Your task to perform on an android device: Open eBay Image 0: 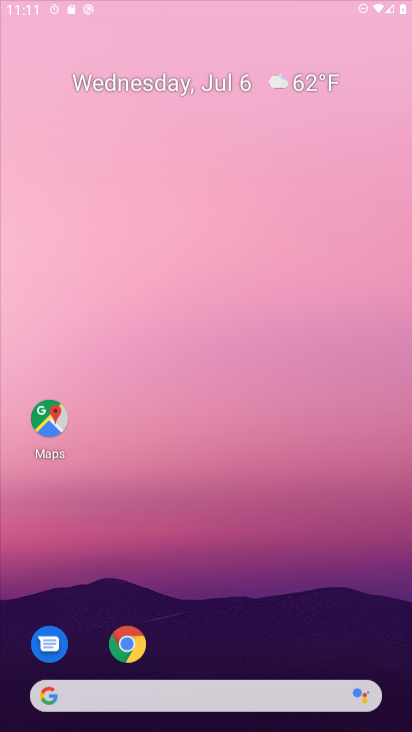
Step 0: press home button
Your task to perform on an android device: Open eBay Image 1: 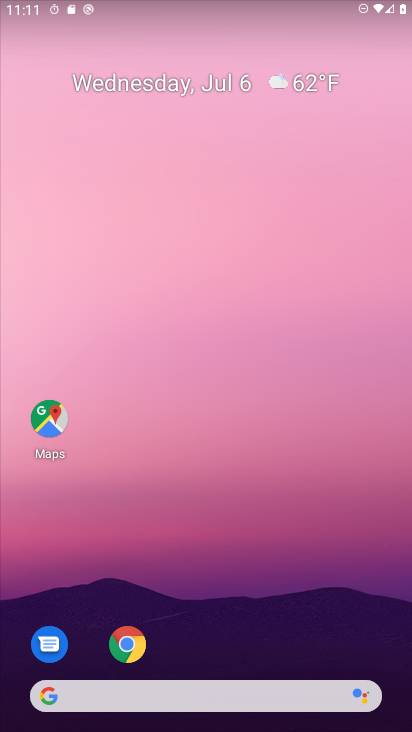
Step 1: click (51, 693)
Your task to perform on an android device: Open eBay Image 2: 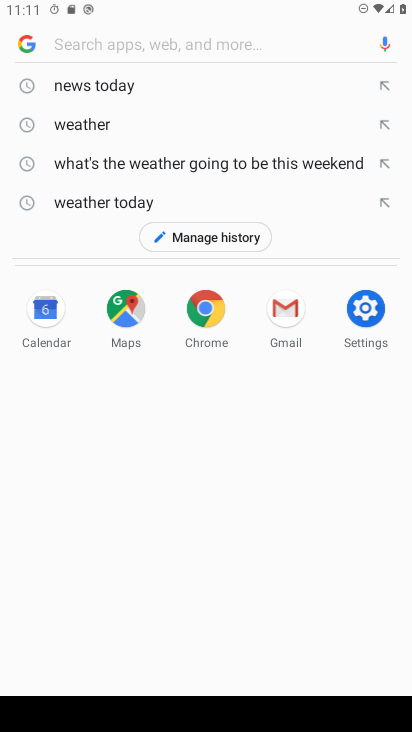
Step 2: type "ebay"
Your task to perform on an android device: Open eBay Image 3: 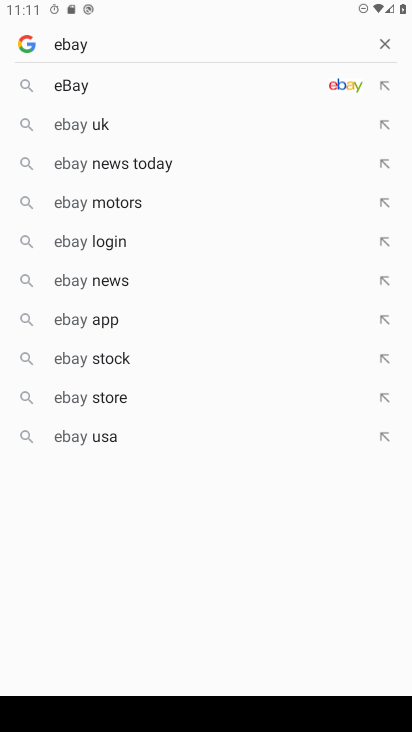
Step 3: click (71, 89)
Your task to perform on an android device: Open eBay Image 4: 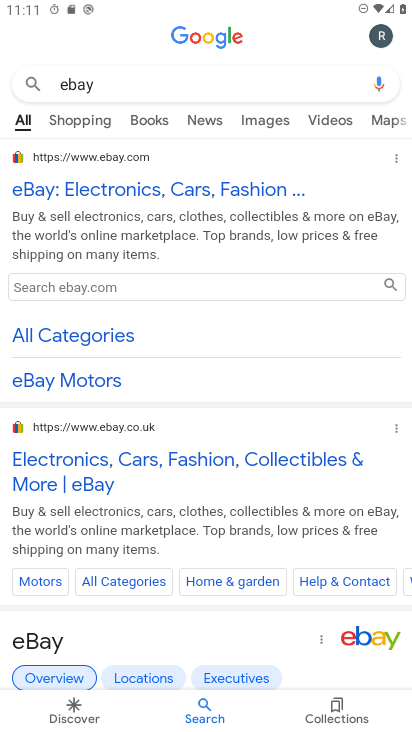
Step 4: click (104, 194)
Your task to perform on an android device: Open eBay Image 5: 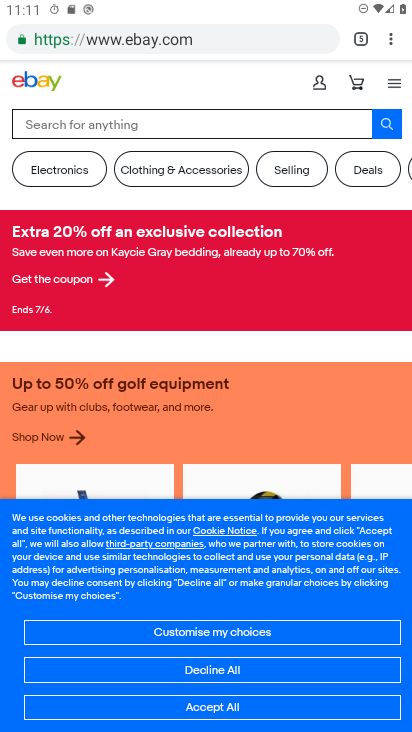
Step 5: task complete